Your task to perform on an android device: toggle notifications settings in the gmail app Image 0: 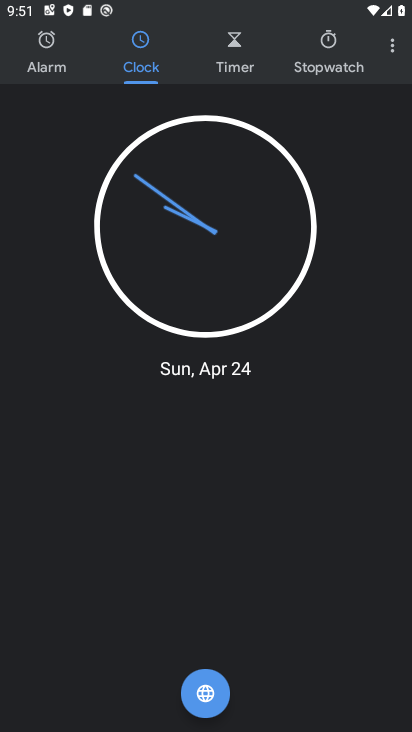
Step 0: press home button
Your task to perform on an android device: toggle notifications settings in the gmail app Image 1: 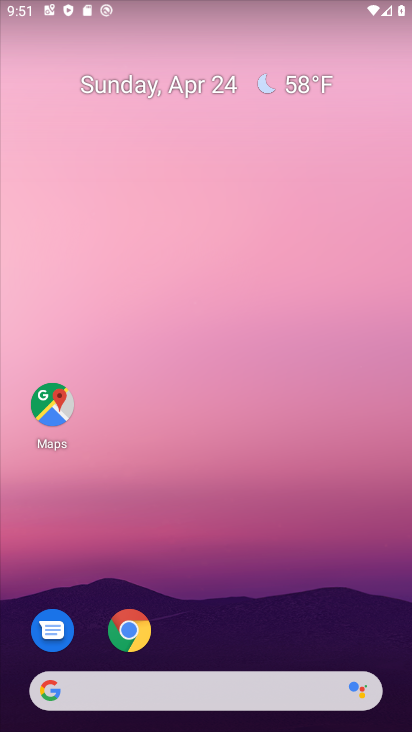
Step 1: drag from (214, 584) to (276, 75)
Your task to perform on an android device: toggle notifications settings in the gmail app Image 2: 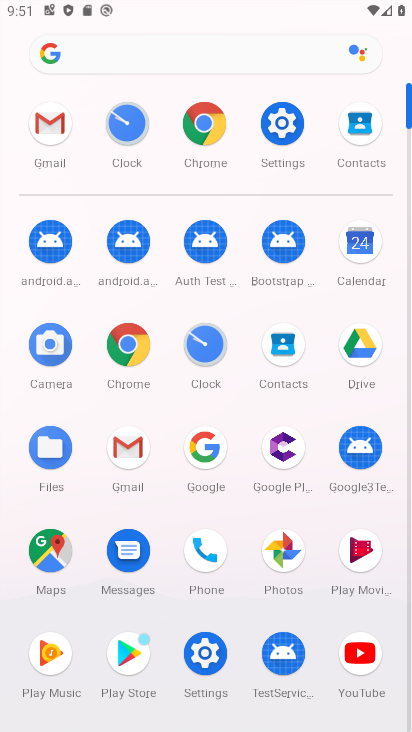
Step 2: click (138, 457)
Your task to perform on an android device: toggle notifications settings in the gmail app Image 3: 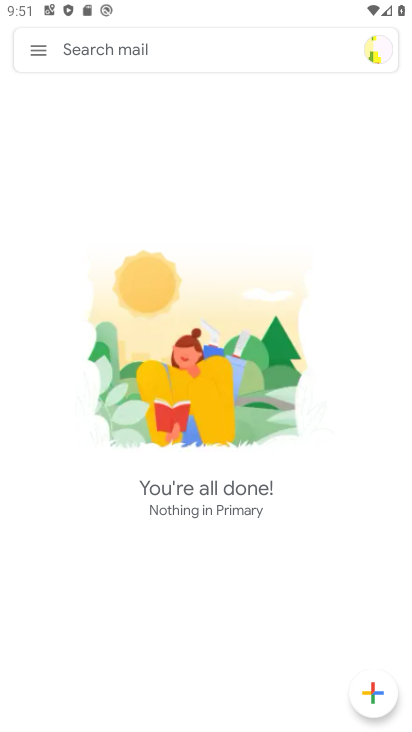
Step 3: click (49, 49)
Your task to perform on an android device: toggle notifications settings in the gmail app Image 4: 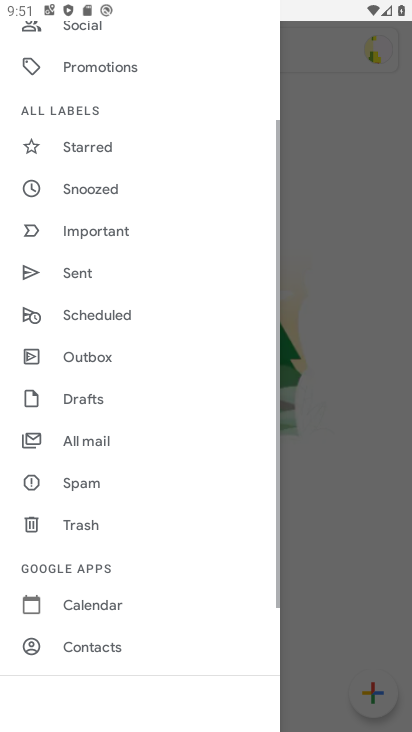
Step 4: drag from (94, 586) to (125, 216)
Your task to perform on an android device: toggle notifications settings in the gmail app Image 5: 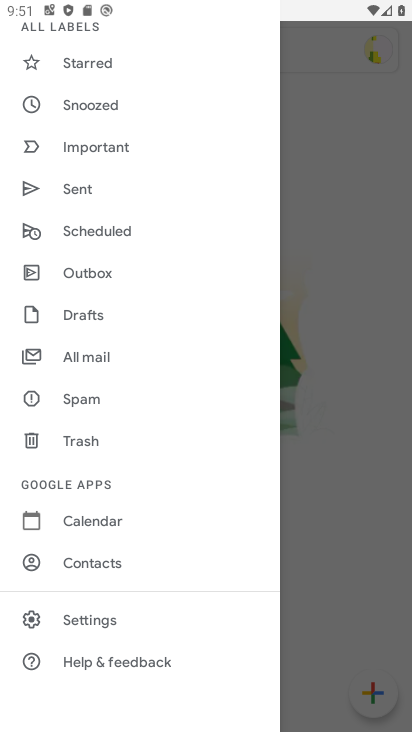
Step 5: click (103, 626)
Your task to perform on an android device: toggle notifications settings in the gmail app Image 6: 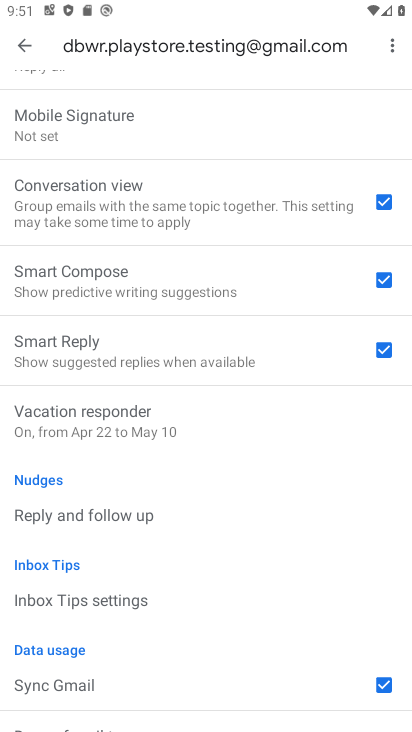
Step 6: click (24, 49)
Your task to perform on an android device: toggle notifications settings in the gmail app Image 7: 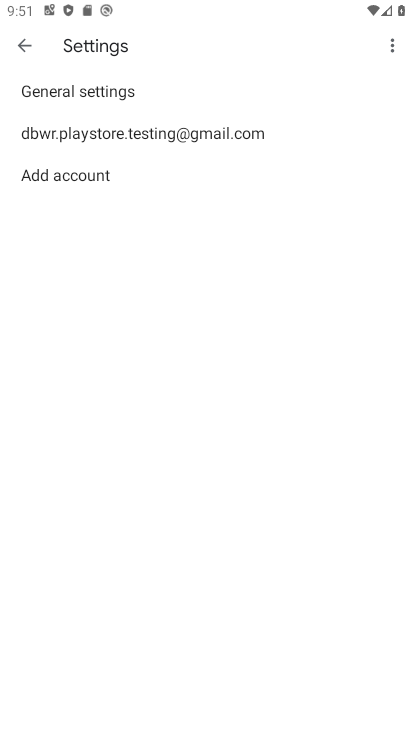
Step 7: click (94, 89)
Your task to perform on an android device: toggle notifications settings in the gmail app Image 8: 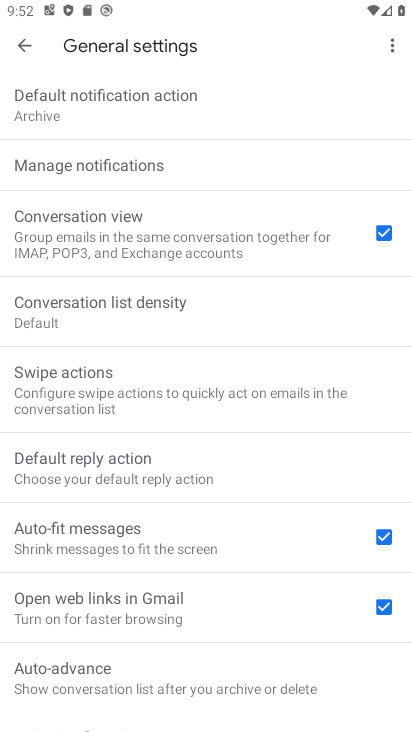
Step 8: click (122, 160)
Your task to perform on an android device: toggle notifications settings in the gmail app Image 9: 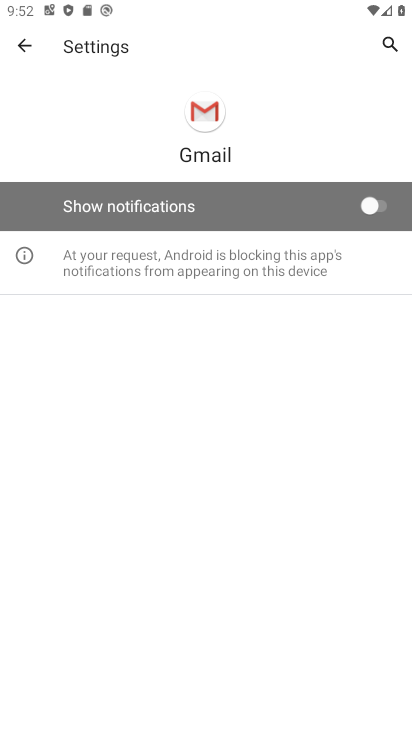
Step 9: click (380, 203)
Your task to perform on an android device: toggle notifications settings in the gmail app Image 10: 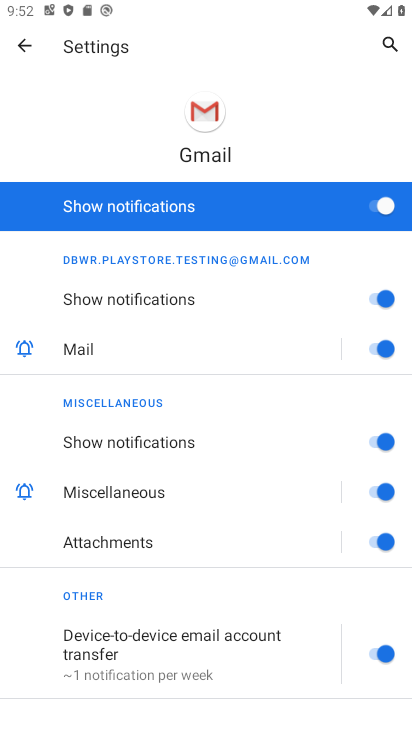
Step 10: task complete